Your task to perform on an android device: turn on the 24-hour format for clock Image 0: 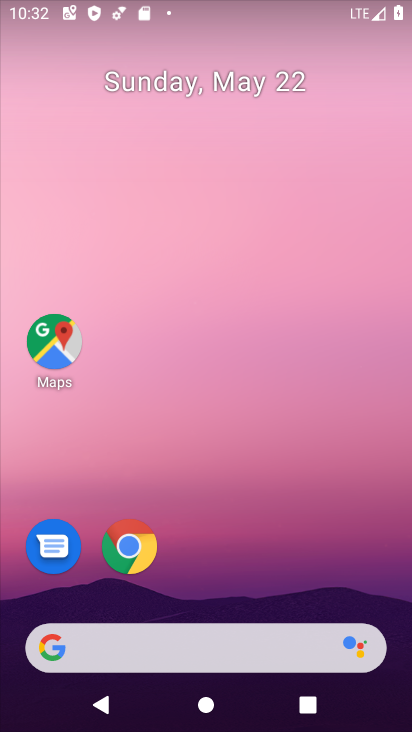
Step 0: click (251, 140)
Your task to perform on an android device: turn on the 24-hour format for clock Image 1: 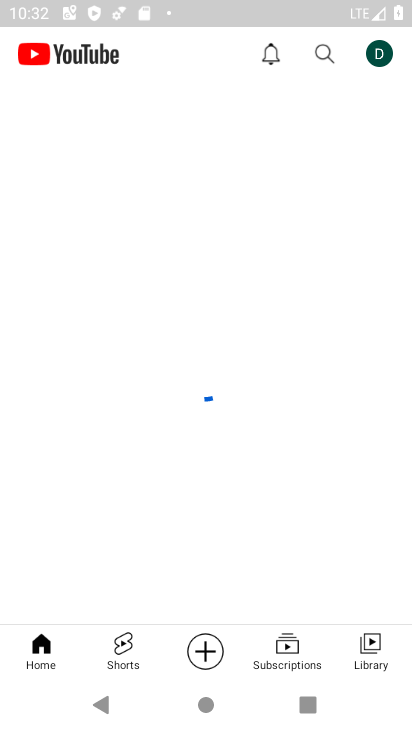
Step 1: press home button
Your task to perform on an android device: turn on the 24-hour format for clock Image 2: 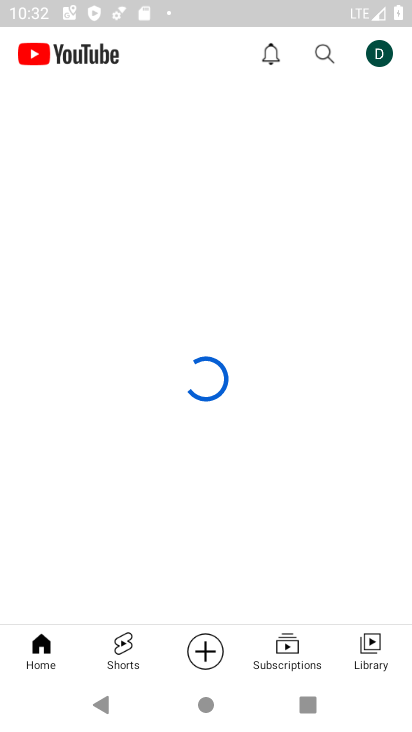
Step 2: press home button
Your task to perform on an android device: turn on the 24-hour format for clock Image 3: 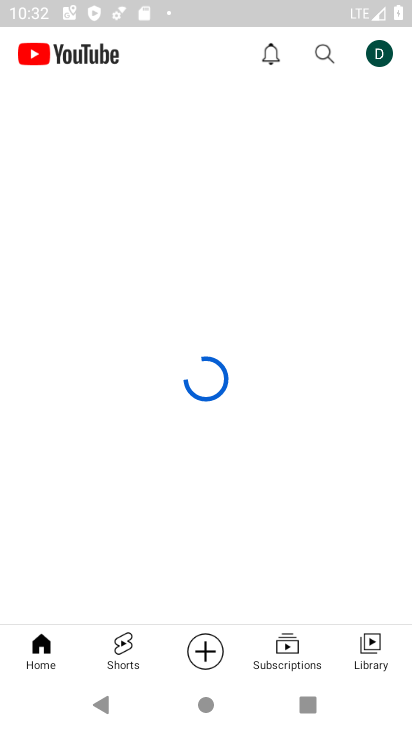
Step 3: drag from (302, 272) to (336, 44)
Your task to perform on an android device: turn on the 24-hour format for clock Image 4: 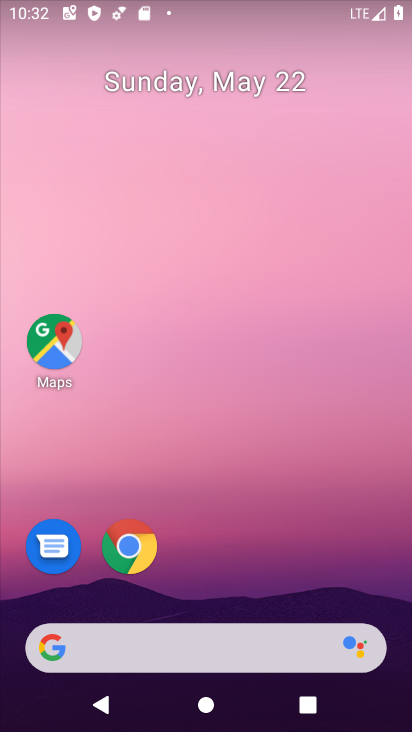
Step 4: drag from (194, 586) to (275, 52)
Your task to perform on an android device: turn on the 24-hour format for clock Image 5: 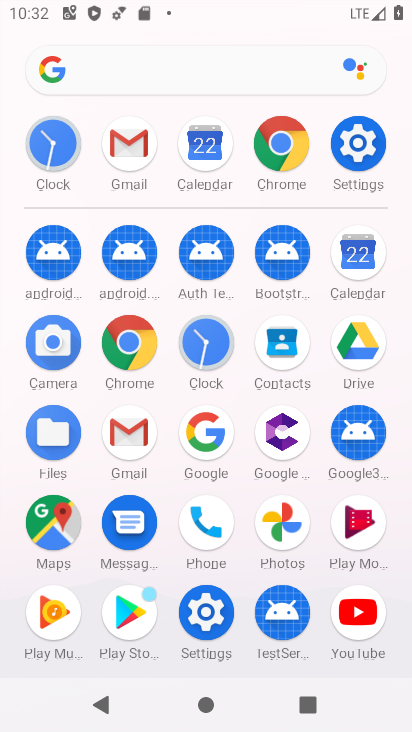
Step 5: click (200, 339)
Your task to perform on an android device: turn on the 24-hour format for clock Image 6: 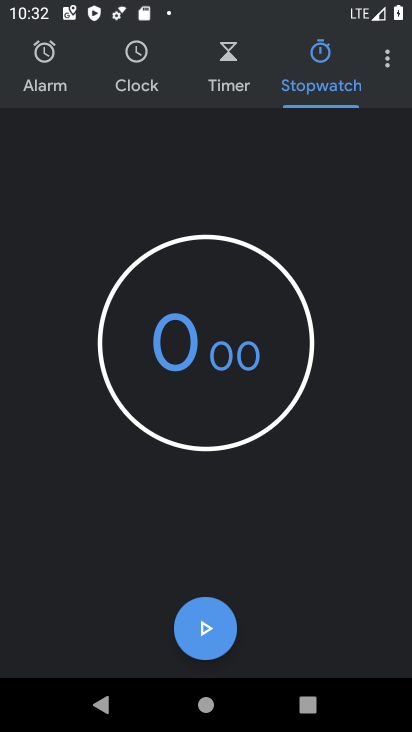
Step 6: click (383, 58)
Your task to perform on an android device: turn on the 24-hour format for clock Image 7: 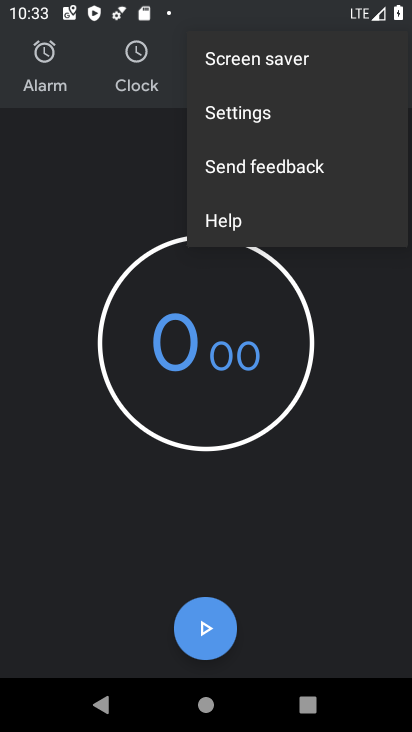
Step 7: click (247, 112)
Your task to perform on an android device: turn on the 24-hour format for clock Image 8: 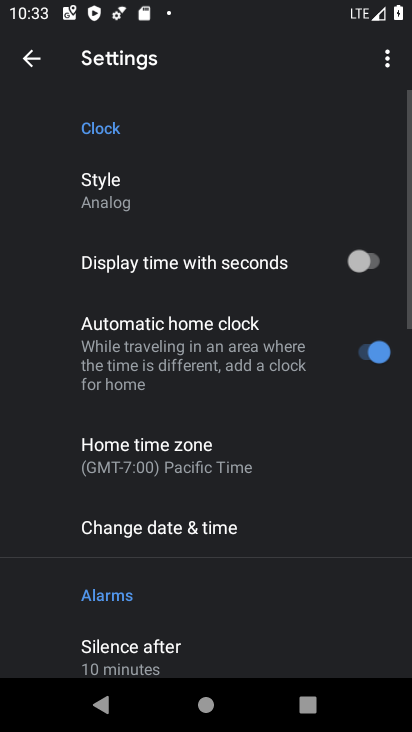
Step 8: click (188, 523)
Your task to perform on an android device: turn on the 24-hour format for clock Image 9: 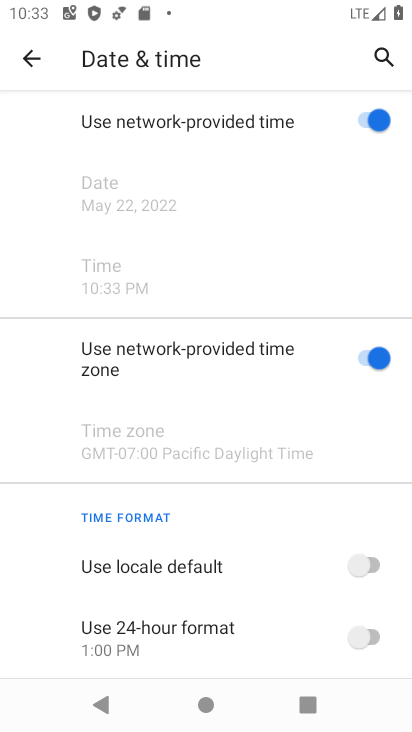
Step 9: click (360, 631)
Your task to perform on an android device: turn on the 24-hour format for clock Image 10: 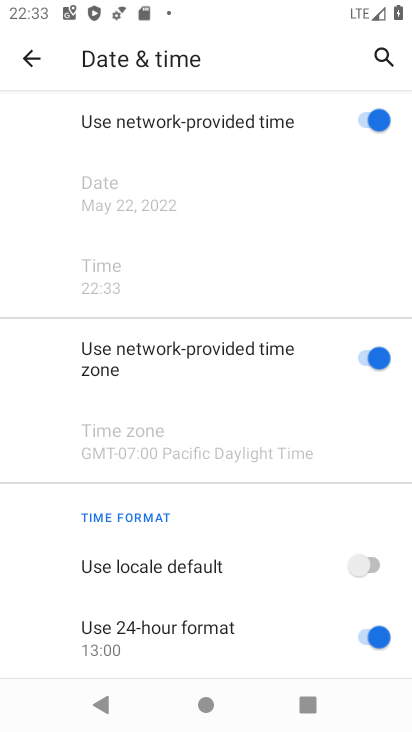
Step 10: task complete